Your task to perform on an android device: toggle priority inbox in the gmail app Image 0: 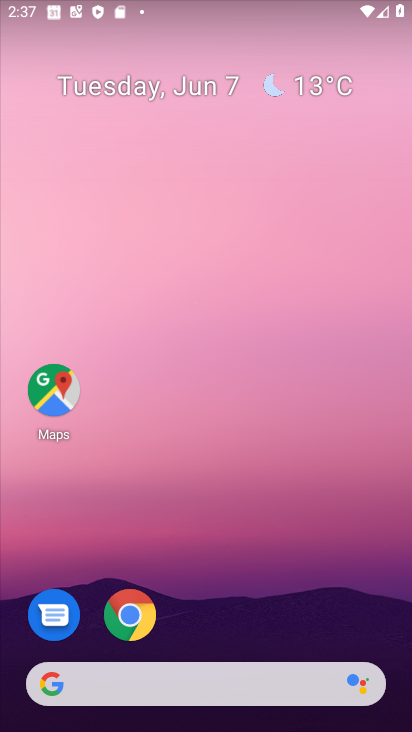
Step 0: drag from (192, 642) to (283, 159)
Your task to perform on an android device: toggle priority inbox in the gmail app Image 1: 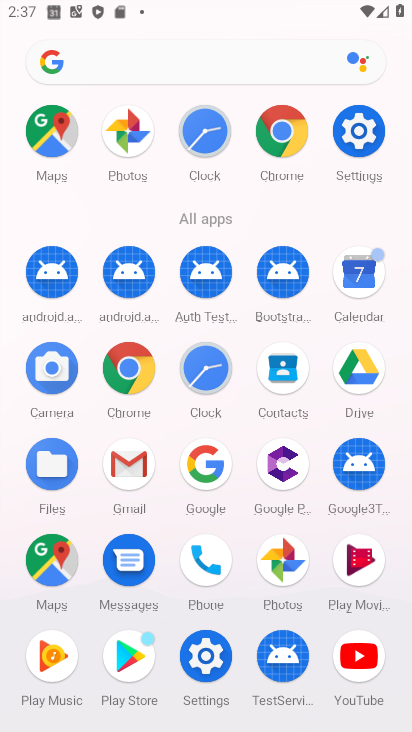
Step 1: click (124, 458)
Your task to perform on an android device: toggle priority inbox in the gmail app Image 2: 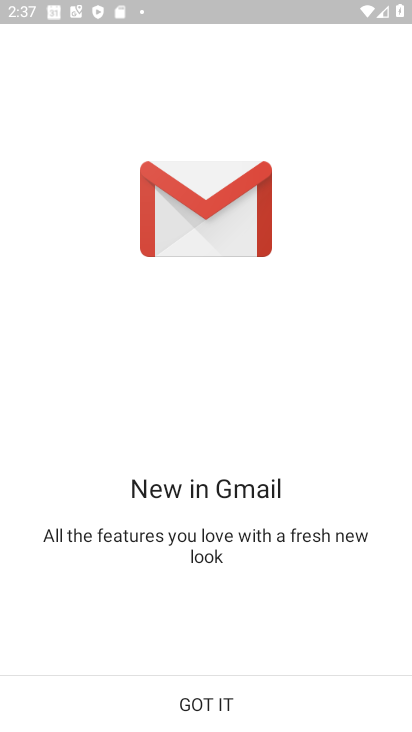
Step 2: click (218, 712)
Your task to perform on an android device: toggle priority inbox in the gmail app Image 3: 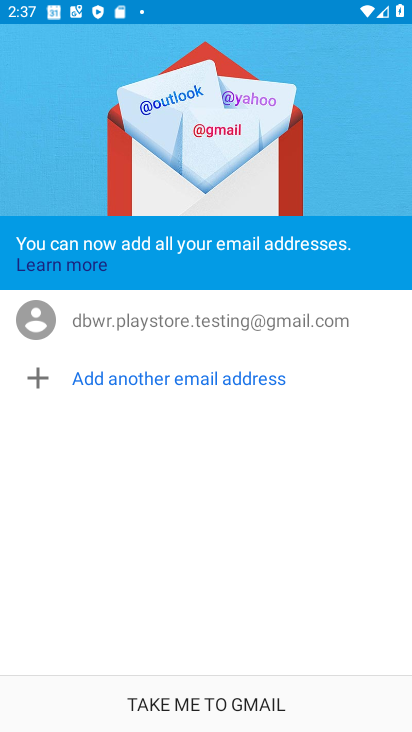
Step 3: click (220, 708)
Your task to perform on an android device: toggle priority inbox in the gmail app Image 4: 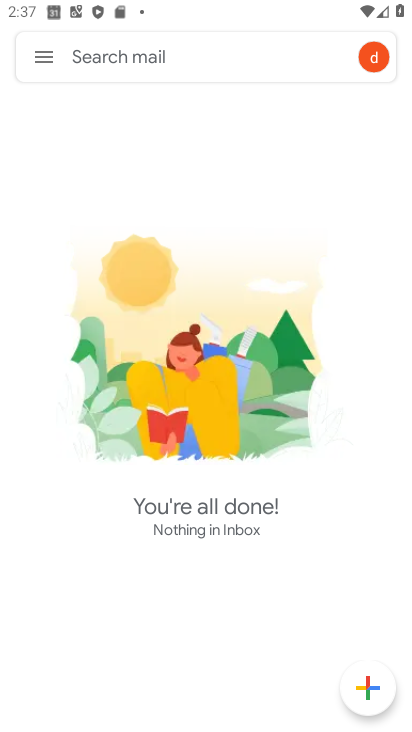
Step 4: click (55, 65)
Your task to perform on an android device: toggle priority inbox in the gmail app Image 5: 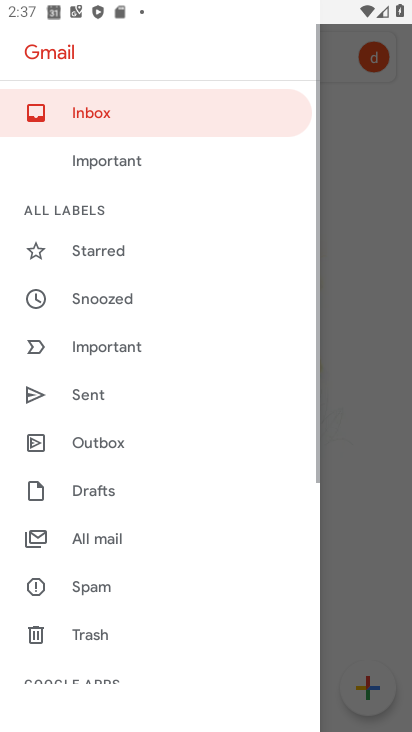
Step 5: drag from (103, 700) to (237, 114)
Your task to perform on an android device: toggle priority inbox in the gmail app Image 6: 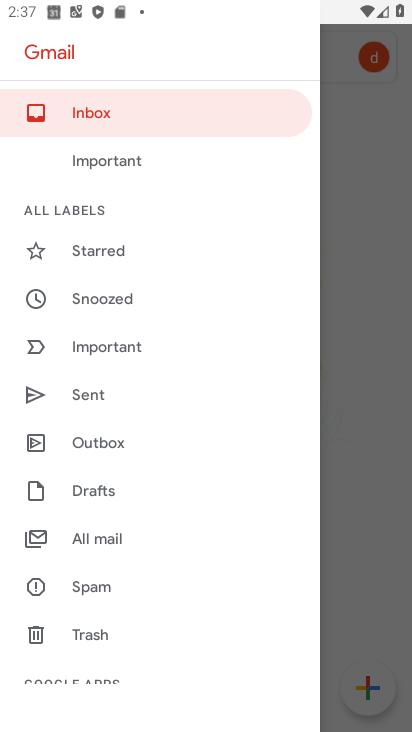
Step 6: drag from (173, 564) to (242, 221)
Your task to perform on an android device: toggle priority inbox in the gmail app Image 7: 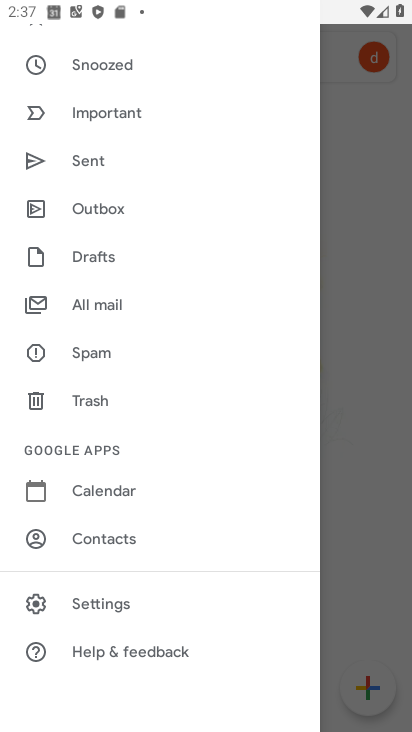
Step 7: click (99, 609)
Your task to perform on an android device: toggle priority inbox in the gmail app Image 8: 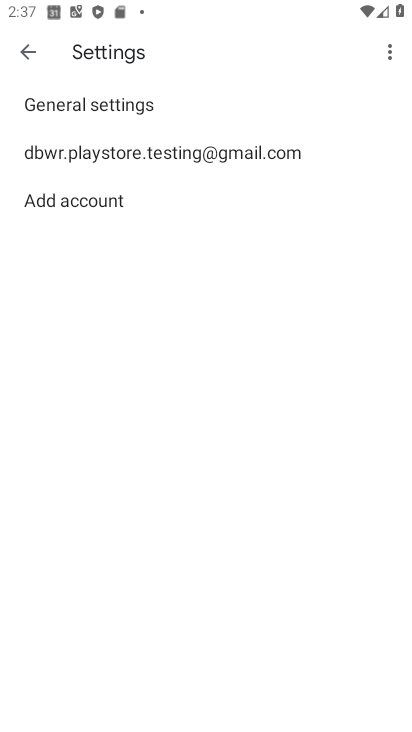
Step 8: click (246, 160)
Your task to perform on an android device: toggle priority inbox in the gmail app Image 9: 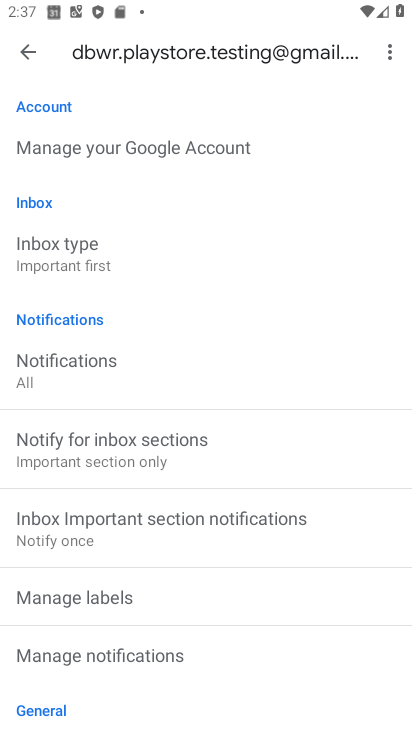
Step 9: click (142, 260)
Your task to perform on an android device: toggle priority inbox in the gmail app Image 10: 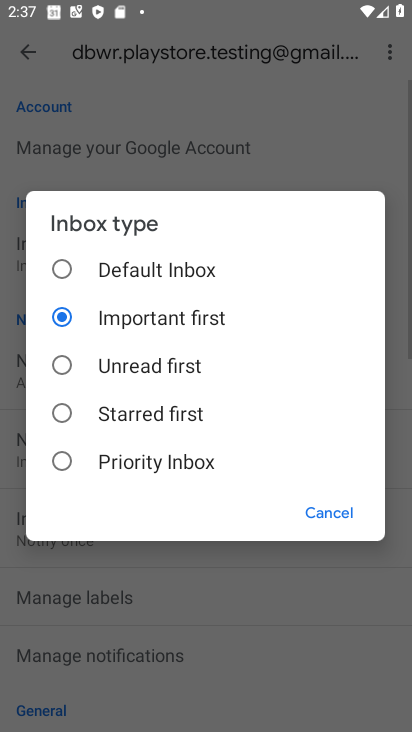
Step 10: click (166, 462)
Your task to perform on an android device: toggle priority inbox in the gmail app Image 11: 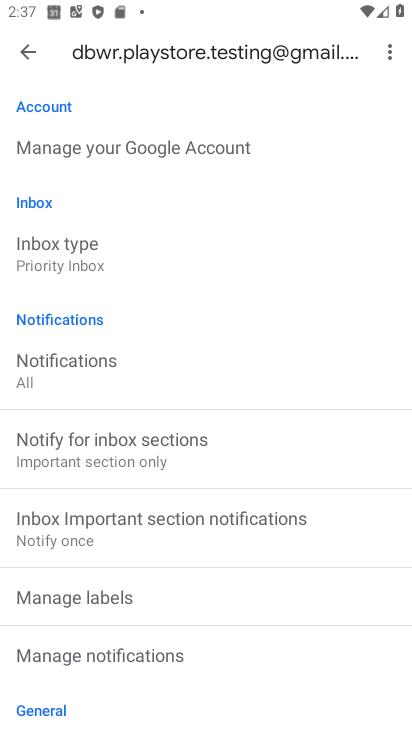
Step 11: task complete